Your task to perform on an android device: Turn off the flashlight Image 0: 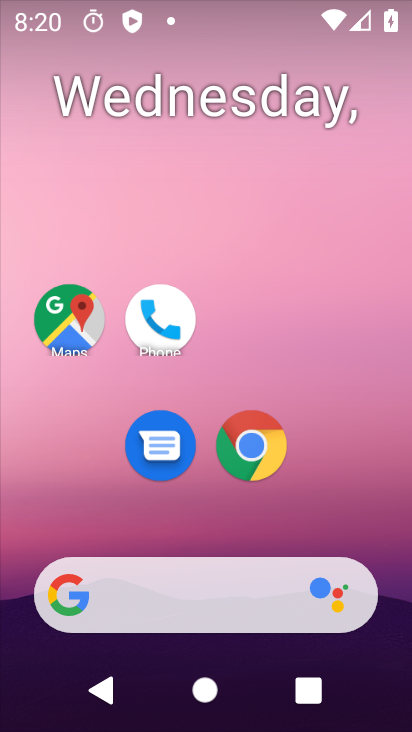
Step 0: drag from (361, 222) to (355, 0)
Your task to perform on an android device: Turn off the flashlight Image 1: 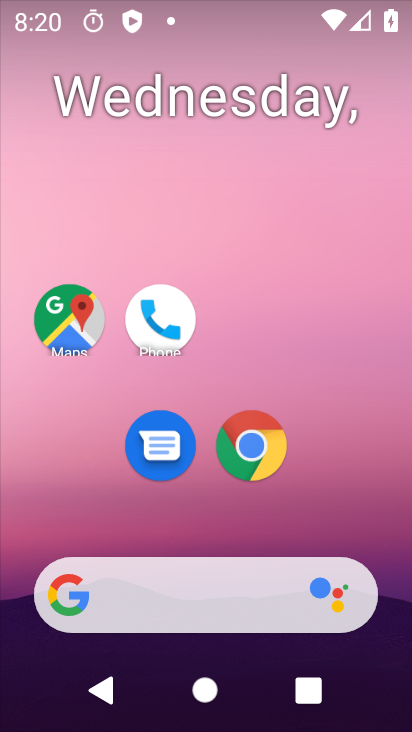
Step 1: drag from (306, 518) to (318, 9)
Your task to perform on an android device: Turn off the flashlight Image 2: 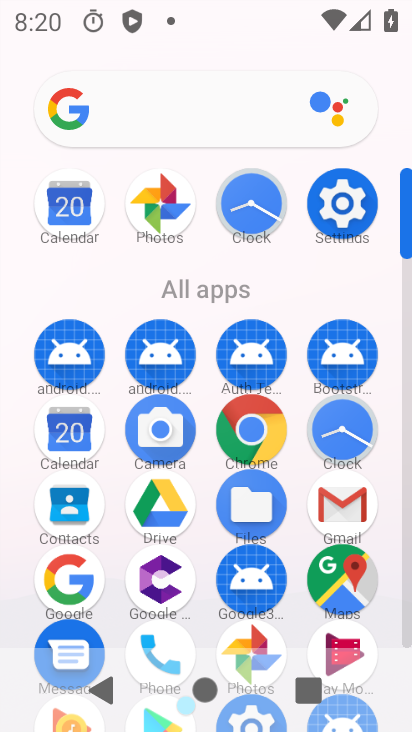
Step 2: click (341, 241)
Your task to perform on an android device: Turn off the flashlight Image 3: 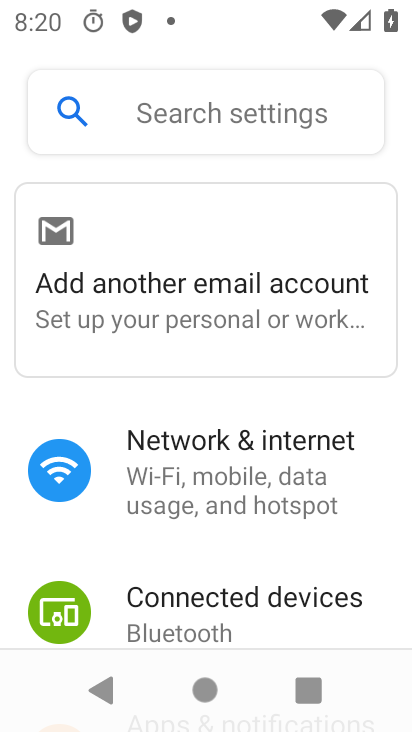
Step 3: task complete